Your task to perform on an android device: Open Google Maps and go to "Timeline" Image 0: 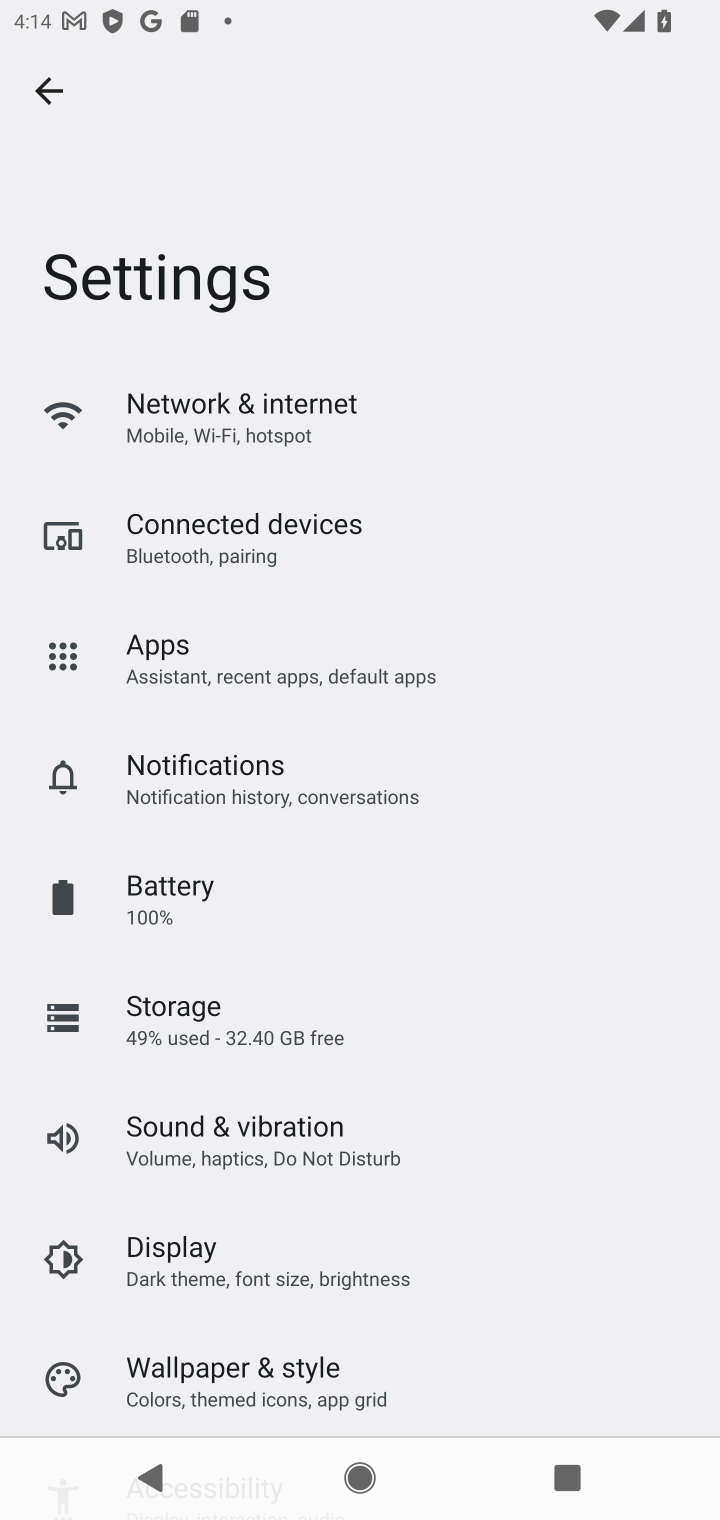
Step 0: press home button
Your task to perform on an android device: Open Google Maps and go to "Timeline" Image 1: 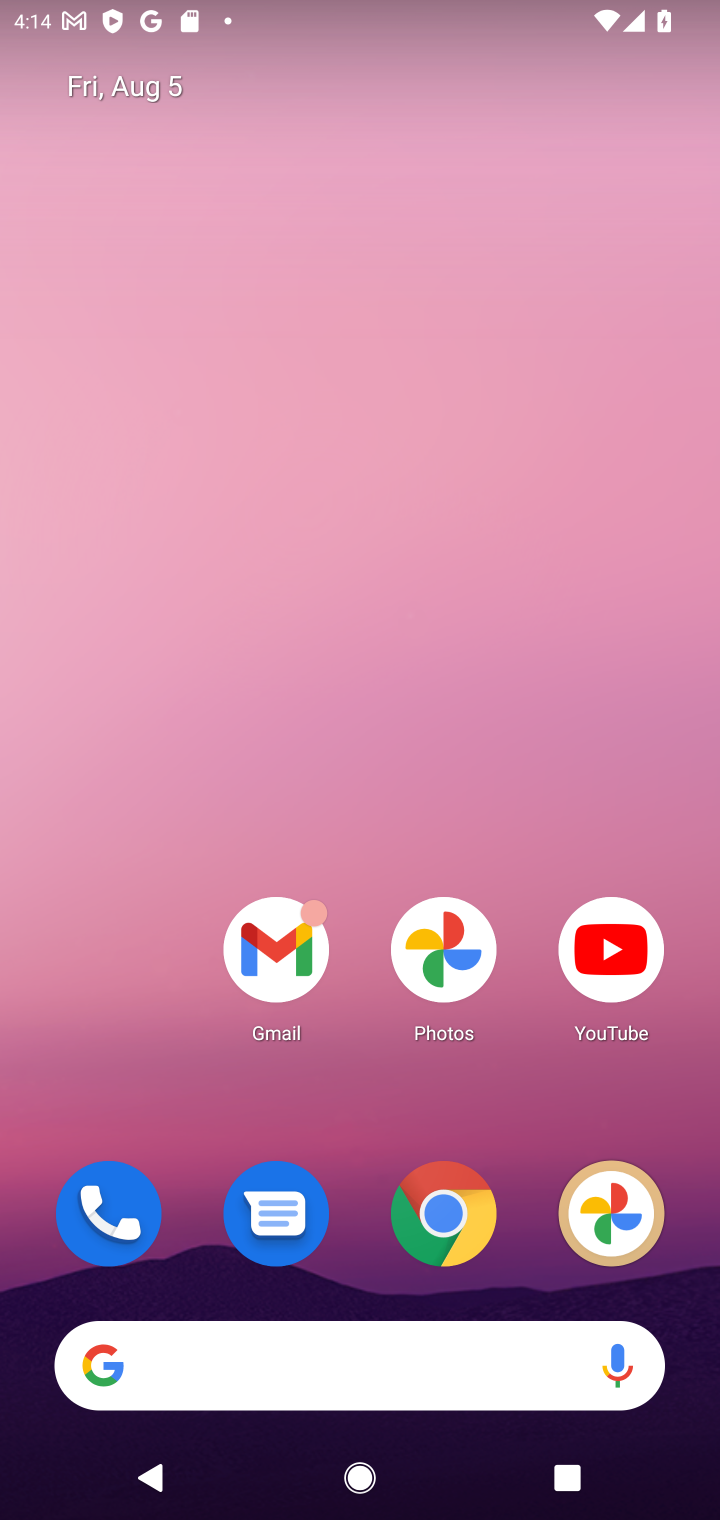
Step 1: drag from (357, 1291) to (457, 143)
Your task to perform on an android device: Open Google Maps and go to "Timeline" Image 2: 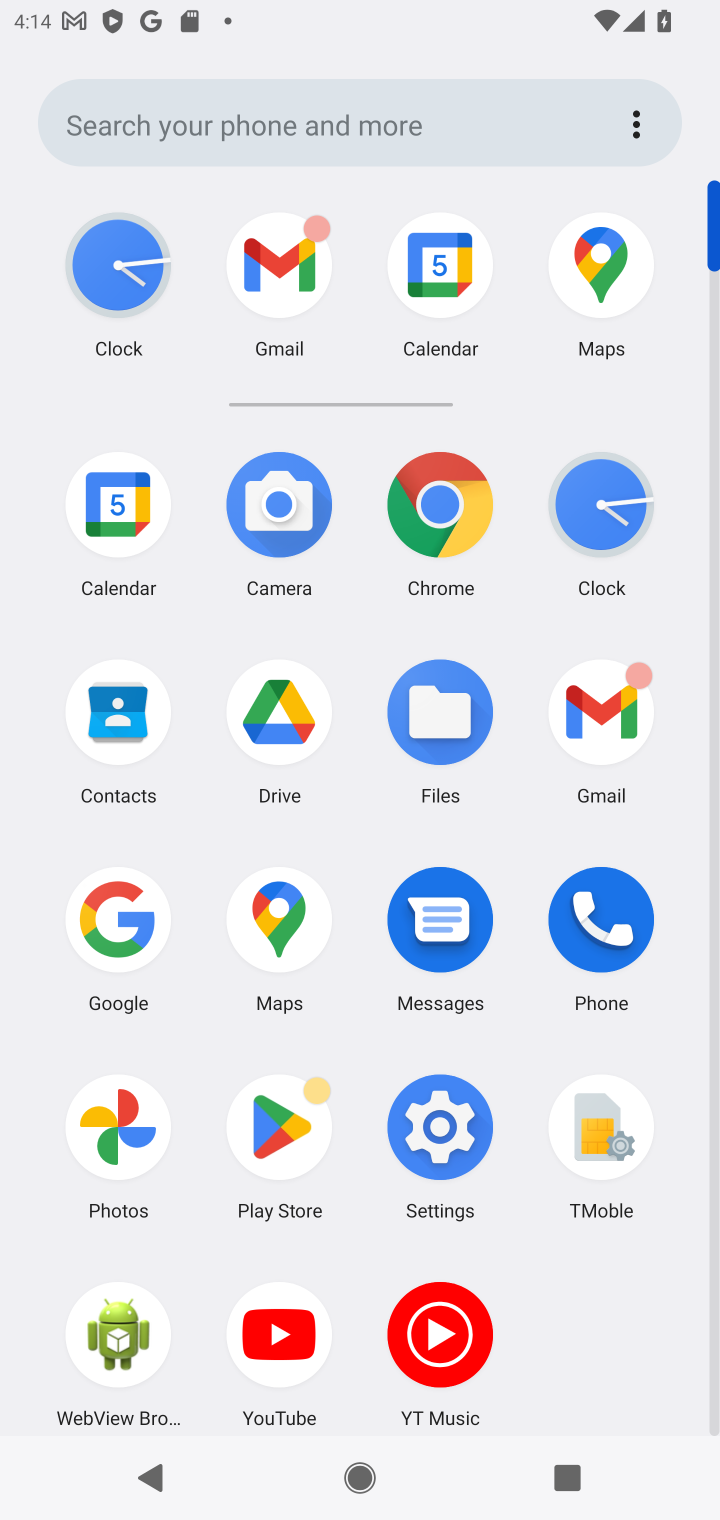
Step 2: click (297, 911)
Your task to perform on an android device: Open Google Maps and go to "Timeline" Image 3: 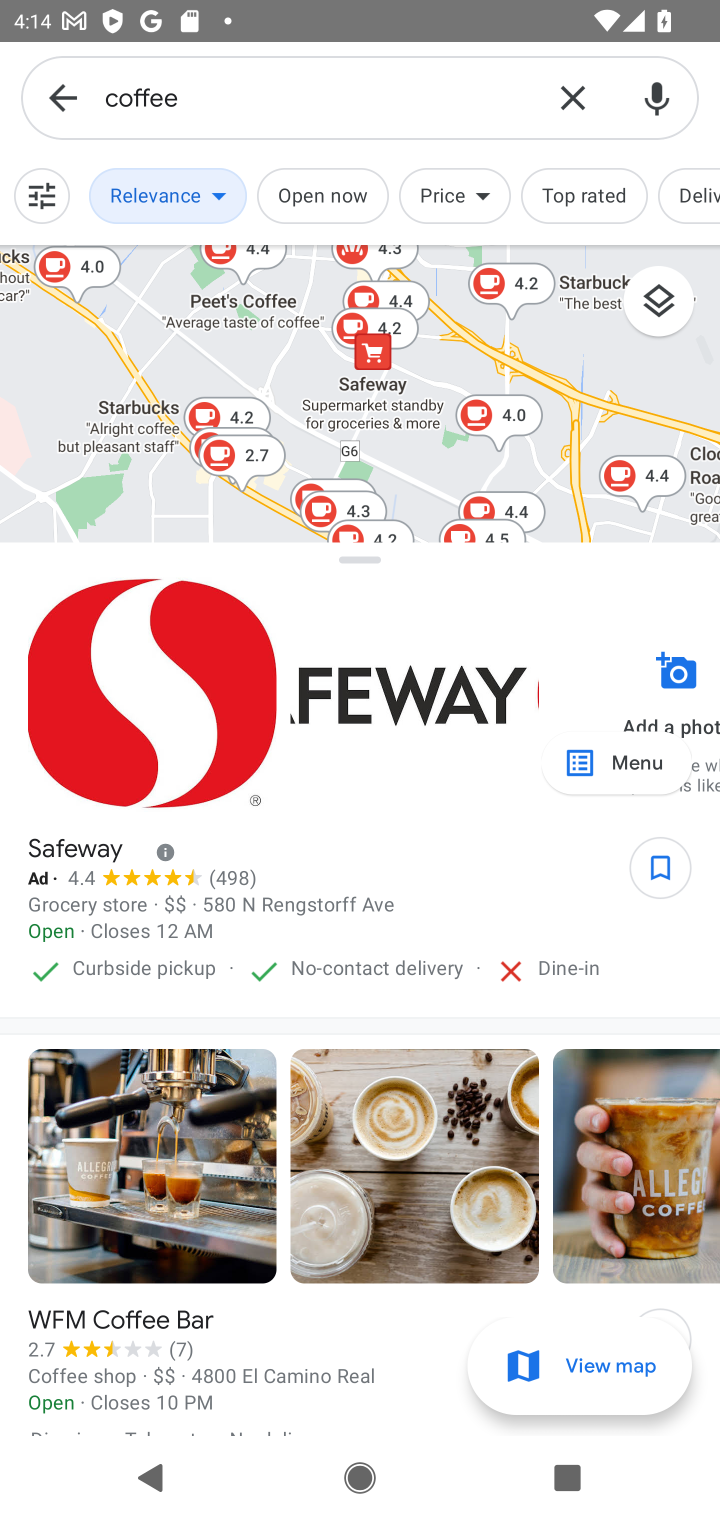
Step 3: click (591, 114)
Your task to perform on an android device: Open Google Maps and go to "Timeline" Image 4: 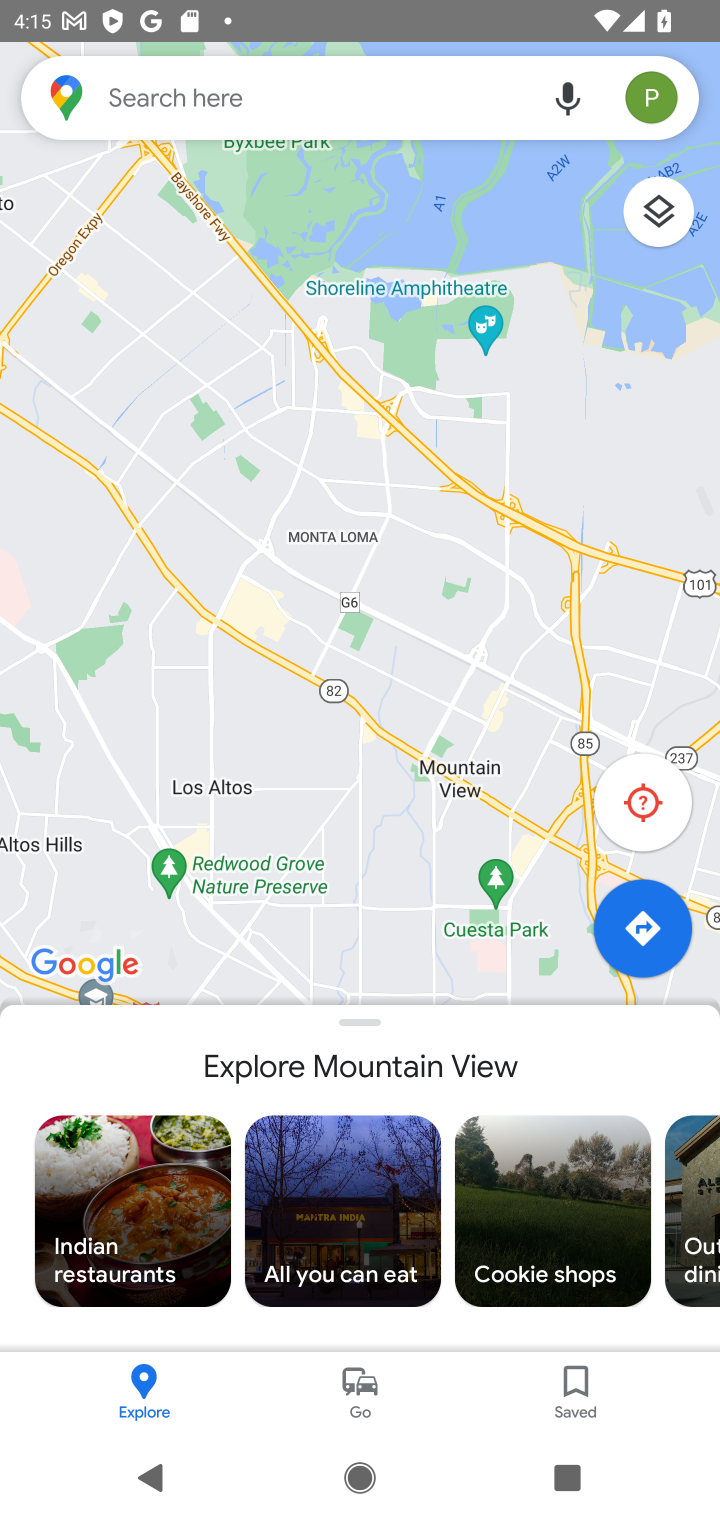
Step 4: click (61, 74)
Your task to perform on an android device: Open Google Maps and go to "Timeline" Image 5: 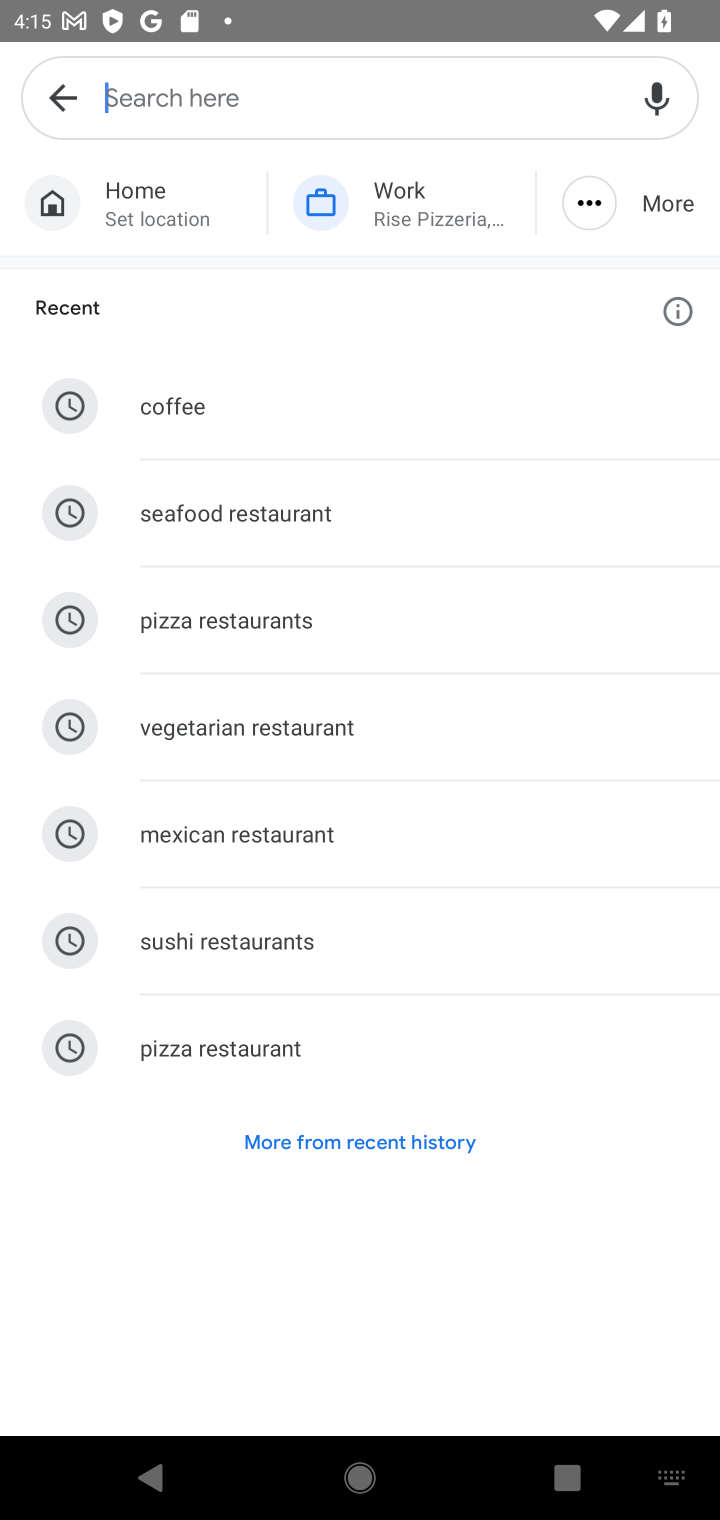
Step 5: click (40, 100)
Your task to perform on an android device: Open Google Maps and go to "Timeline" Image 6: 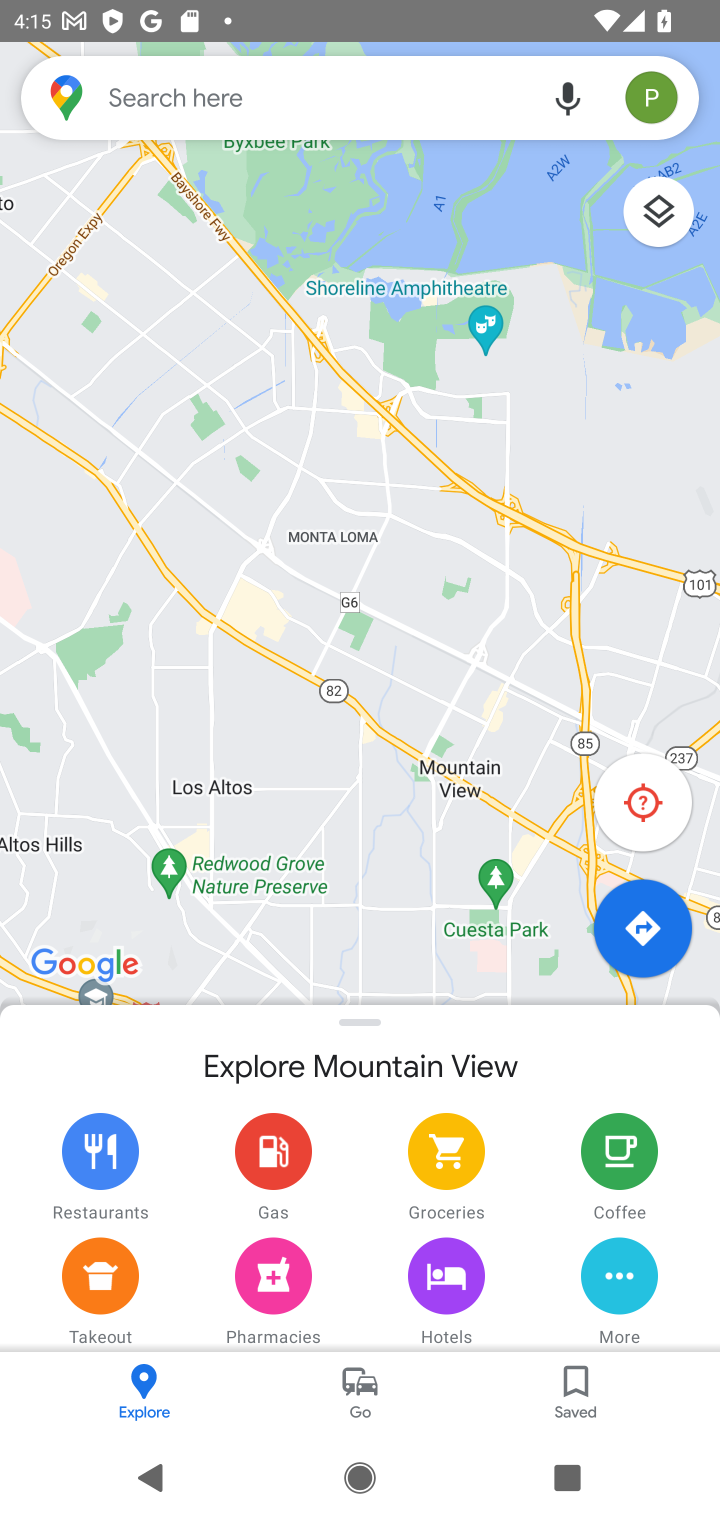
Step 6: click (635, 96)
Your task to perform on an android device: Open Google Maps and go to "Timeline" Image 7: 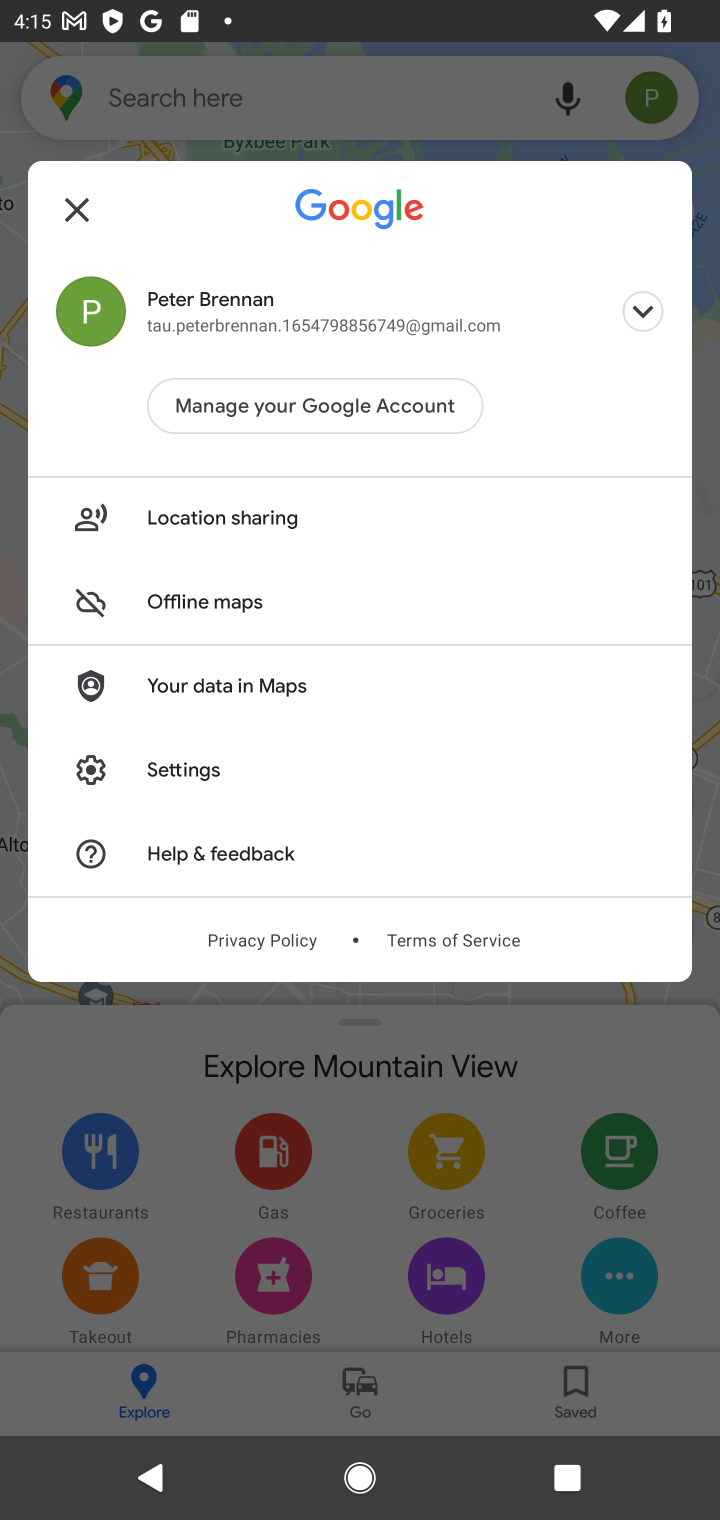
Step 7: task complete